Your task to perform on an android device: see creations saved in the google photos Image 0: 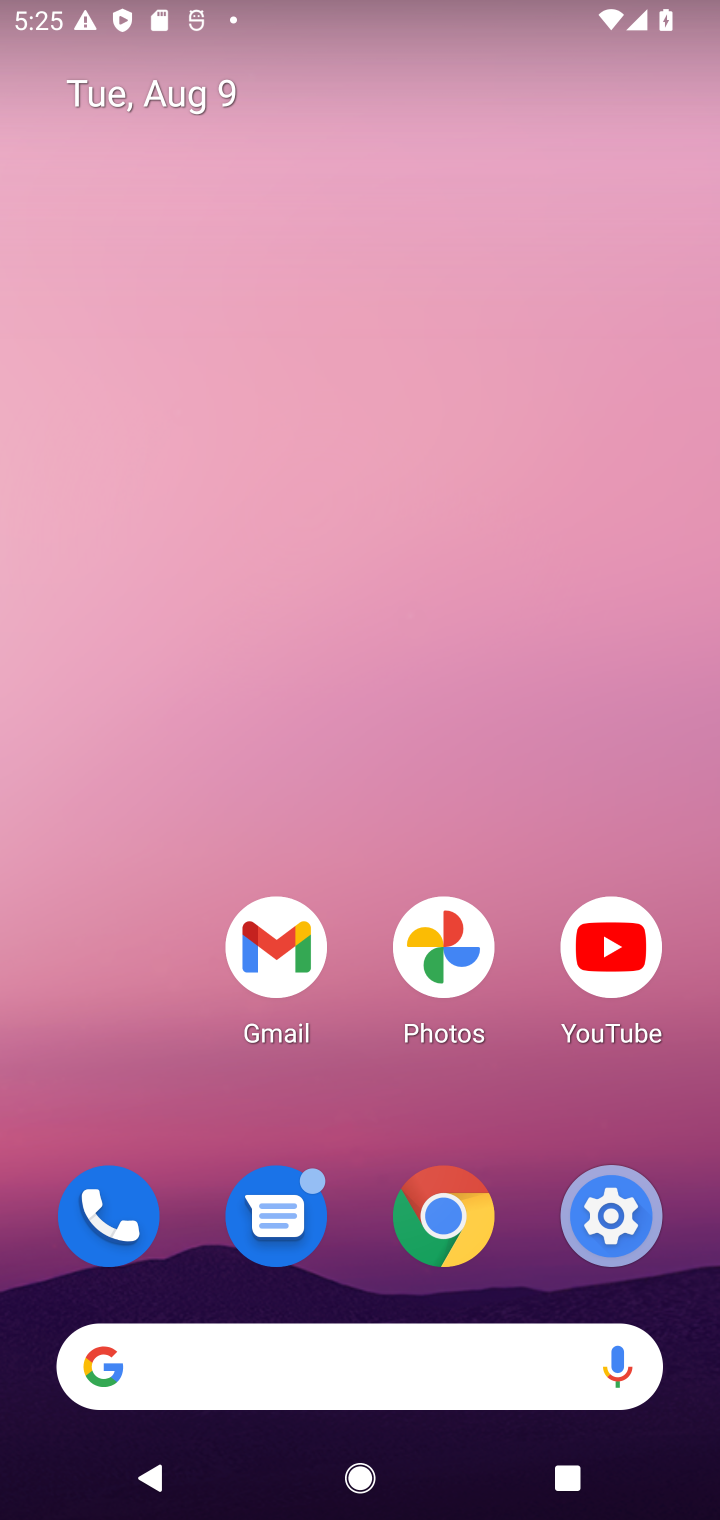
Step 0: drag from (348, 1323) to (396, 521)
Your task to perform on an android device: see creations saved in the google photos Image 1: 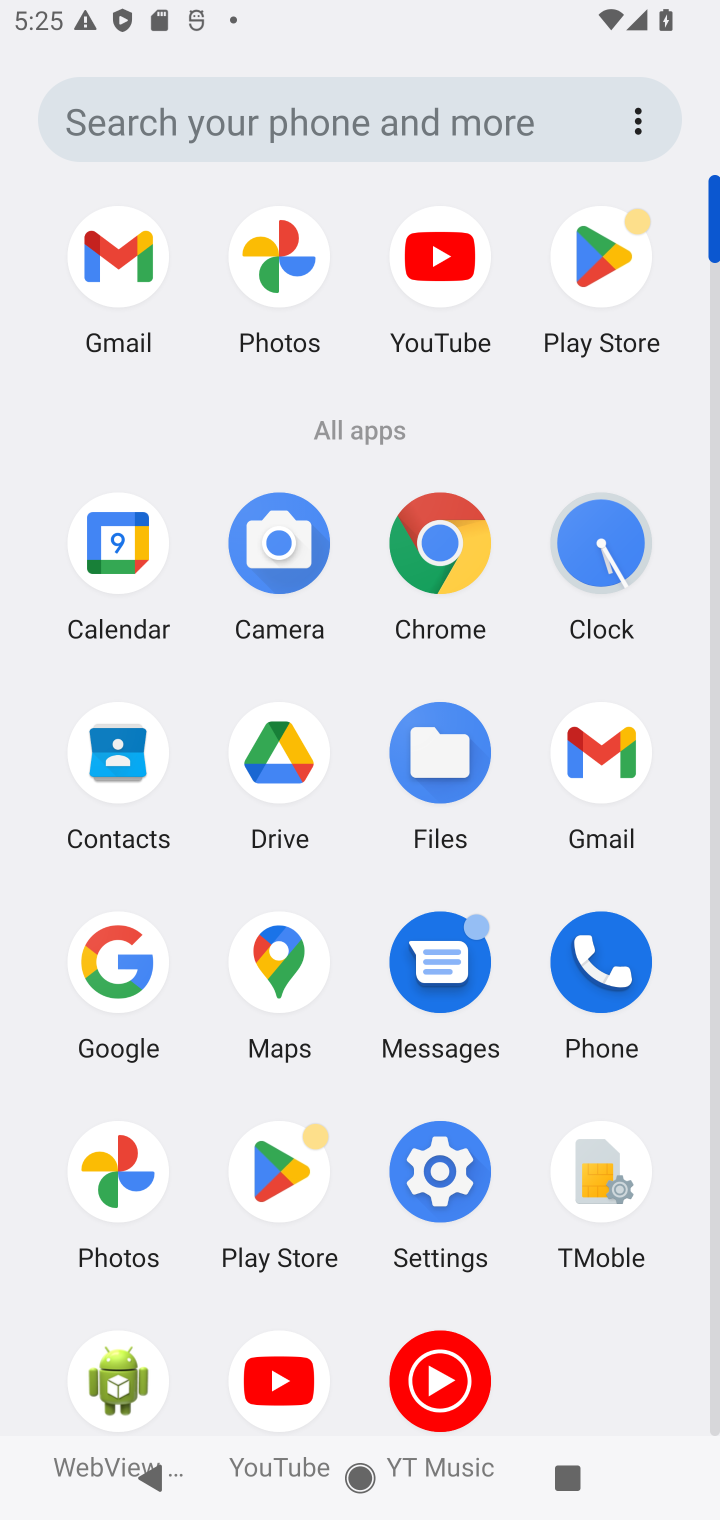
Step 1: click (620, 758)
Your task to perform on an android device: see creations saved in the google photos Image 2: 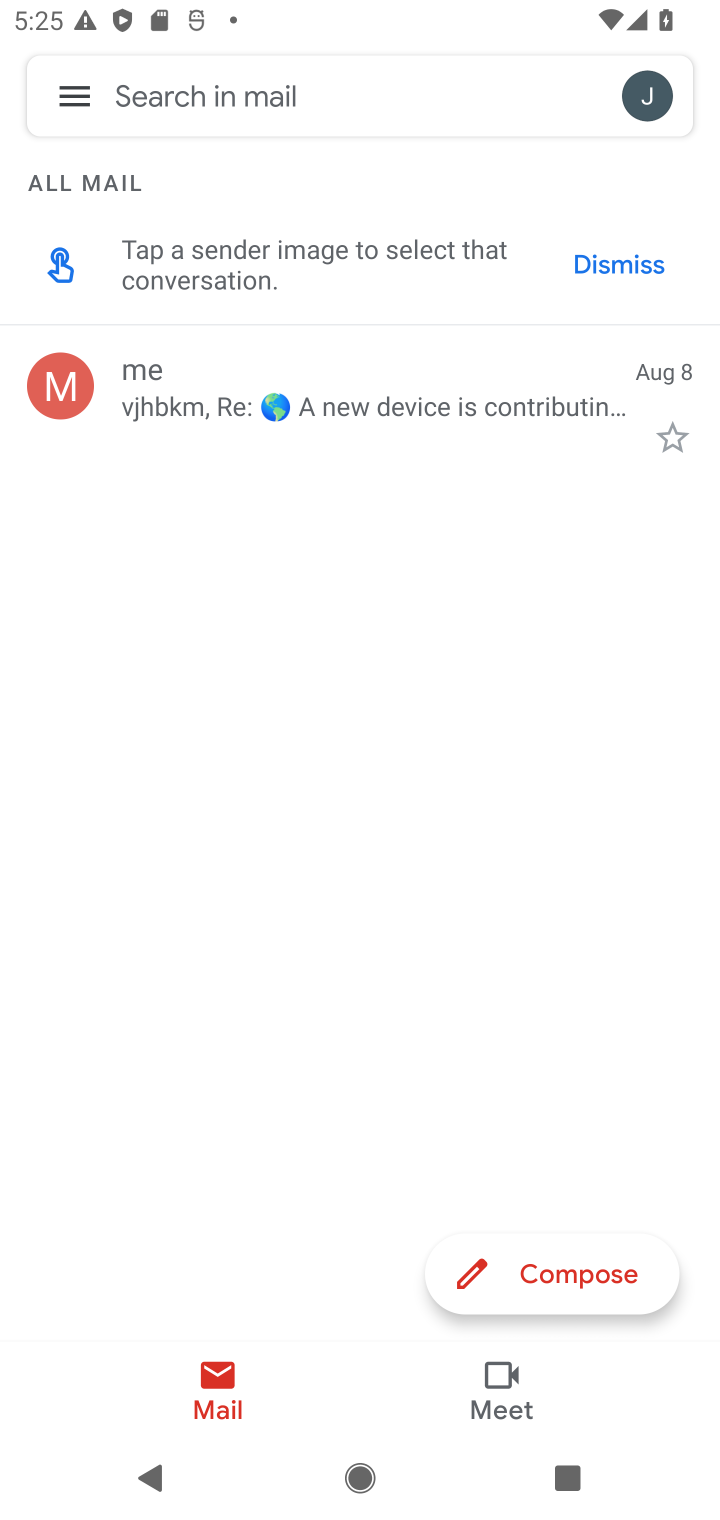
Step 2: click (77, 88)
Your task to perform on an android device: see creations saved in the google photos Image 3: 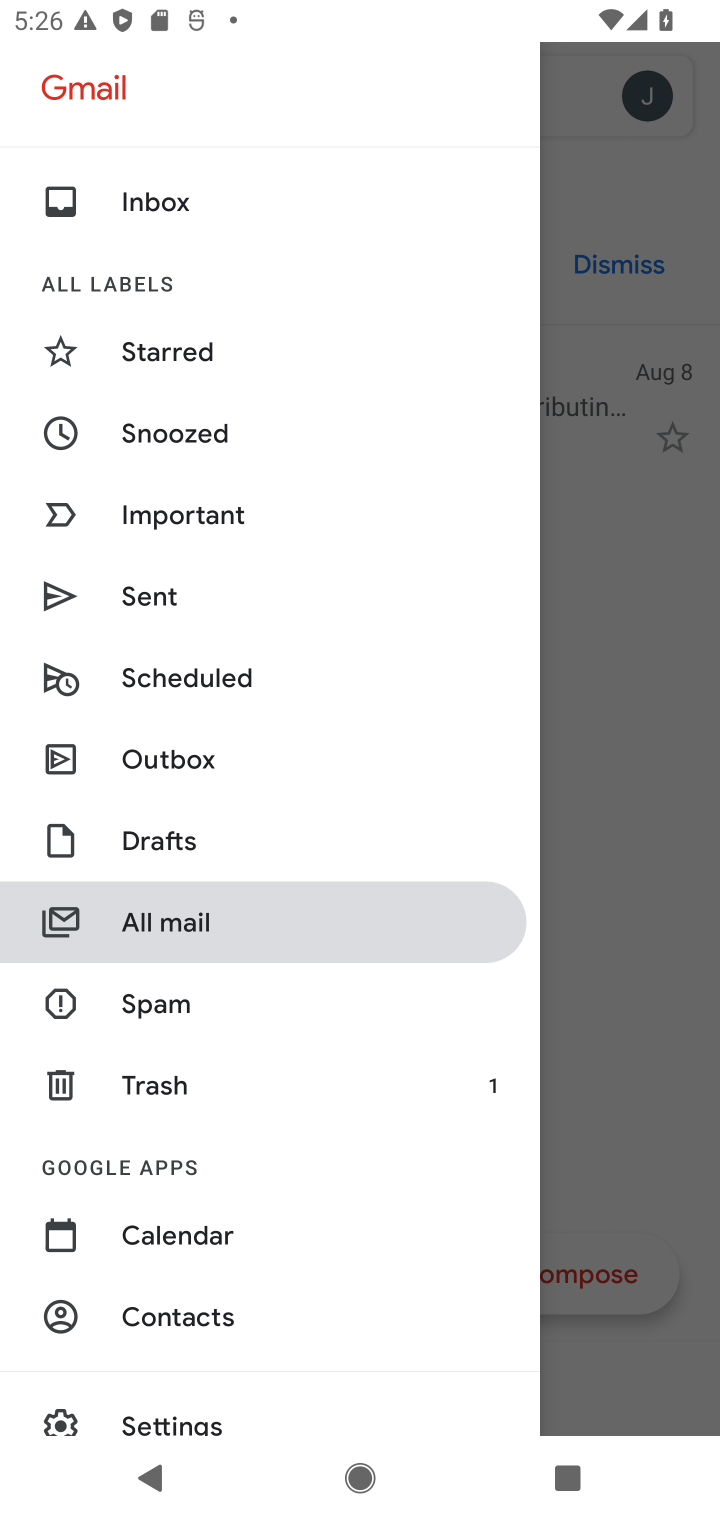
Step 3: click (169, 202)
Your task to perform on an android device: see creations saved in the google photos Image 4: 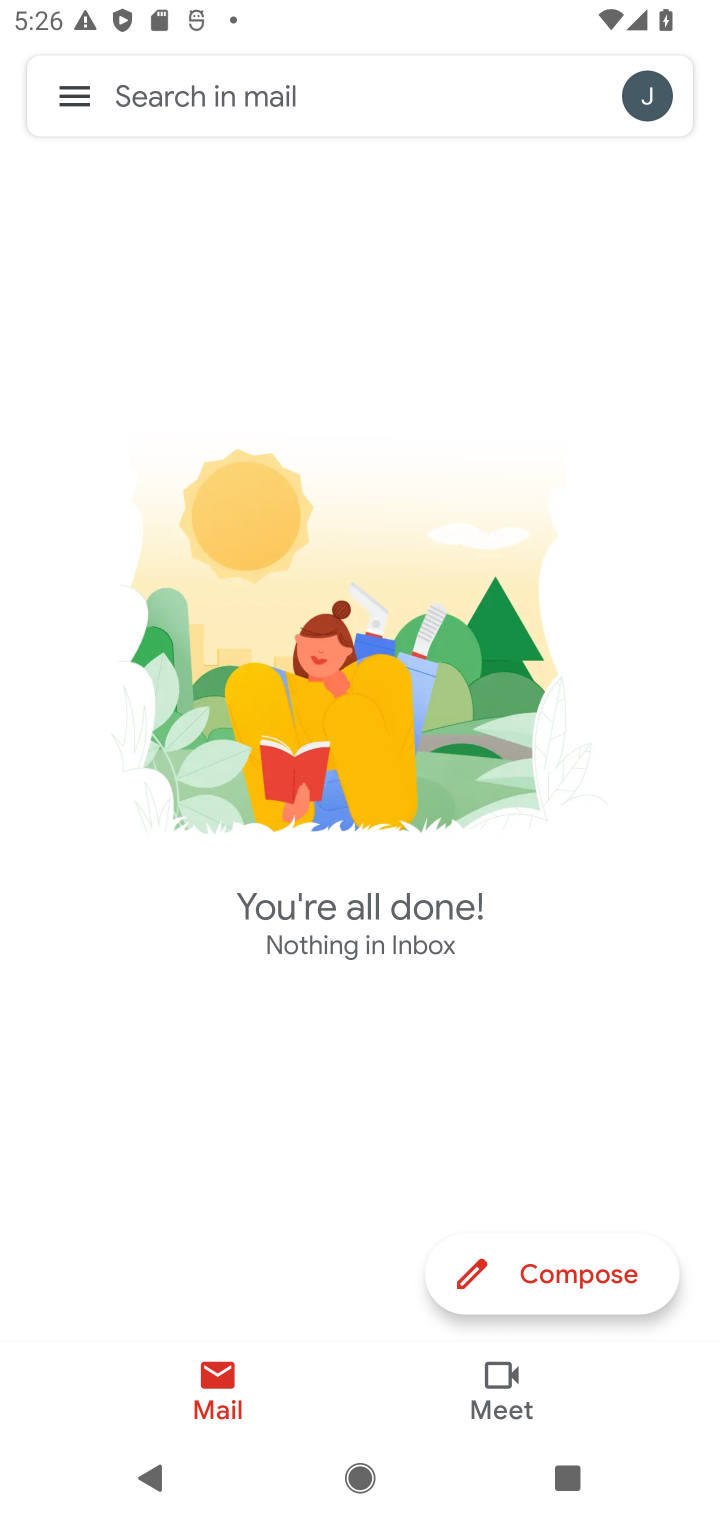
Step 4: press home button
Your task to perform on an android device: see creations saved in the google photos Image 5: 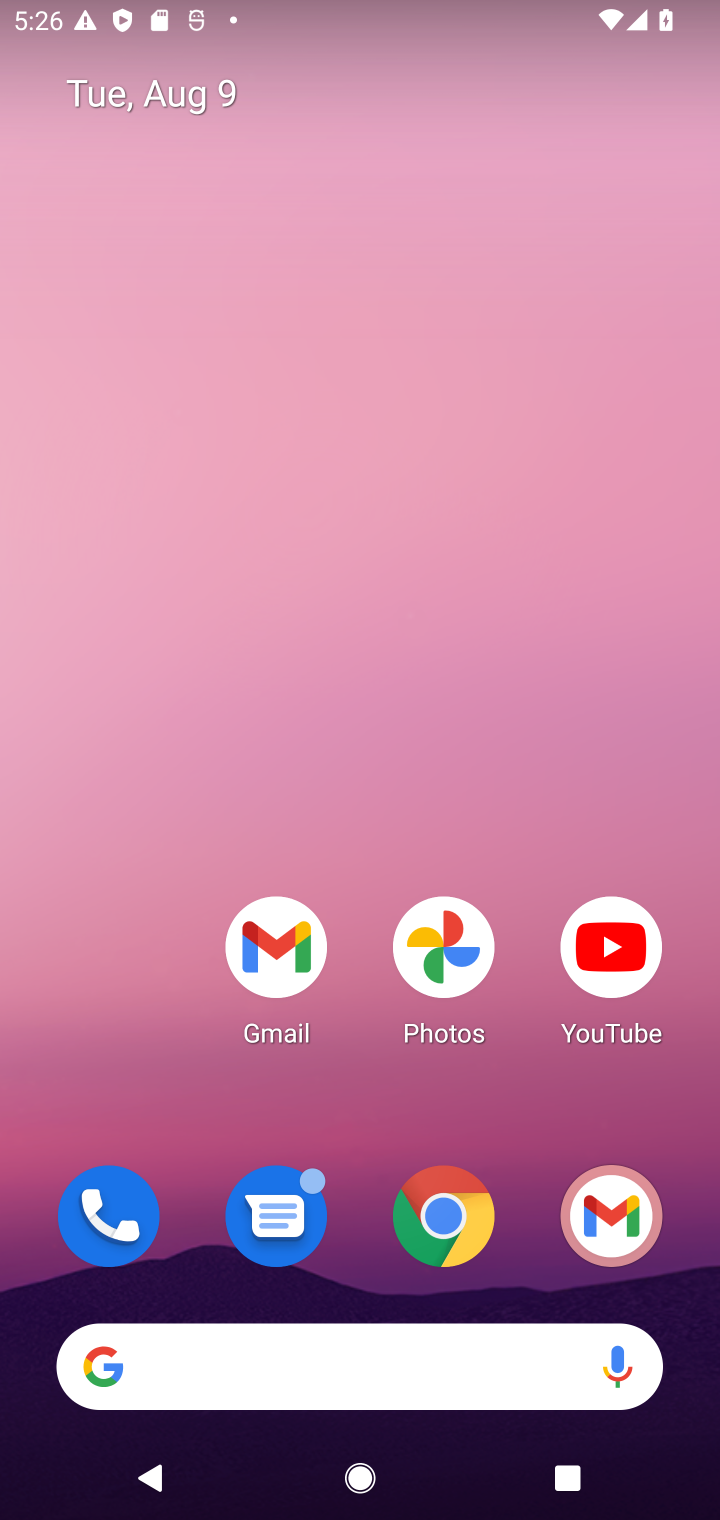
Step 5: click (437, 937)
Your task to perform on an android device: see creations saved in the google photos Image 6: 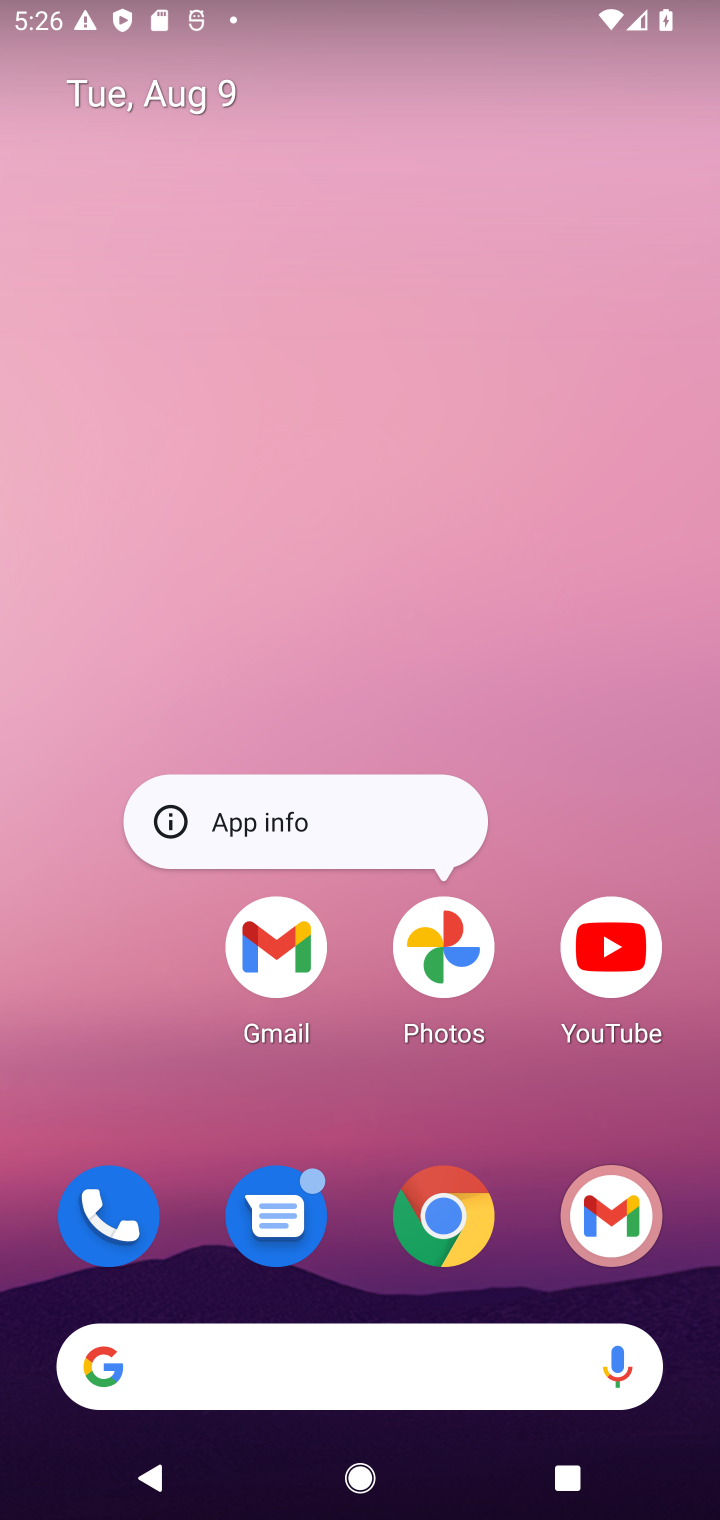
Step 6: click (439, 944)
Your task to perform on an android device: see creations saved in the google photos Image 7: 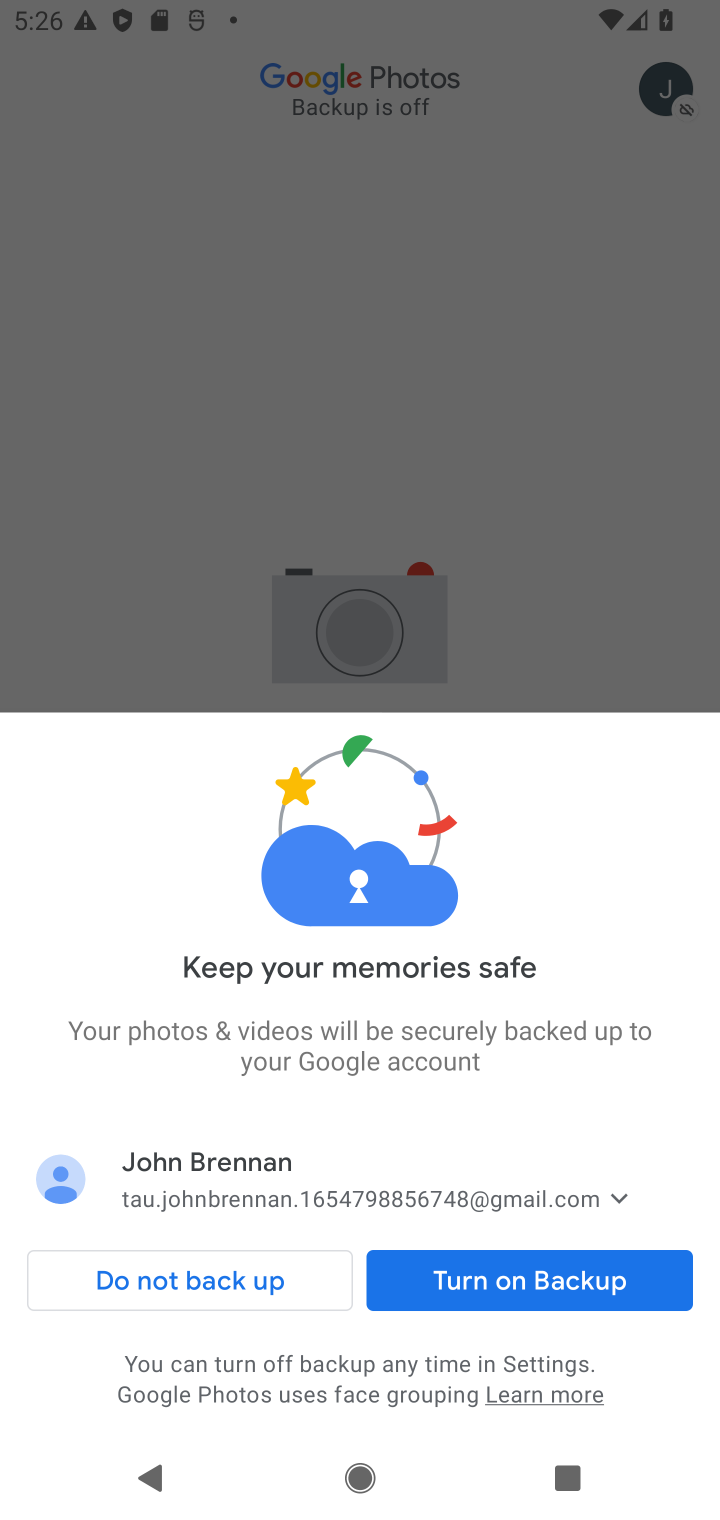
Step 7: click (466, 1278)
Your task to perform on an android device: see creations saved in the google photos Image 8: 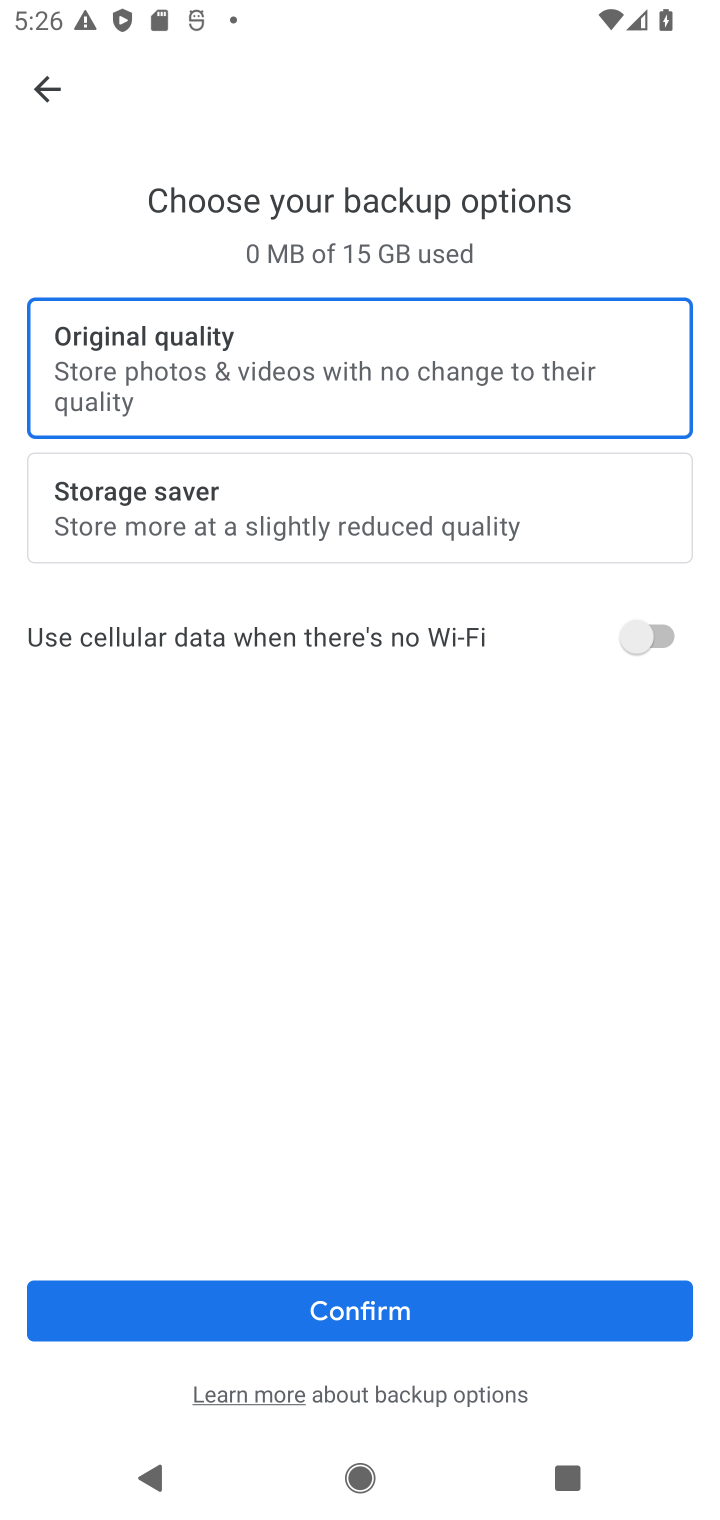
Step 8: click (275, 1316)
Your task to perform on an android device: see creations saved in the google photos Image 9: 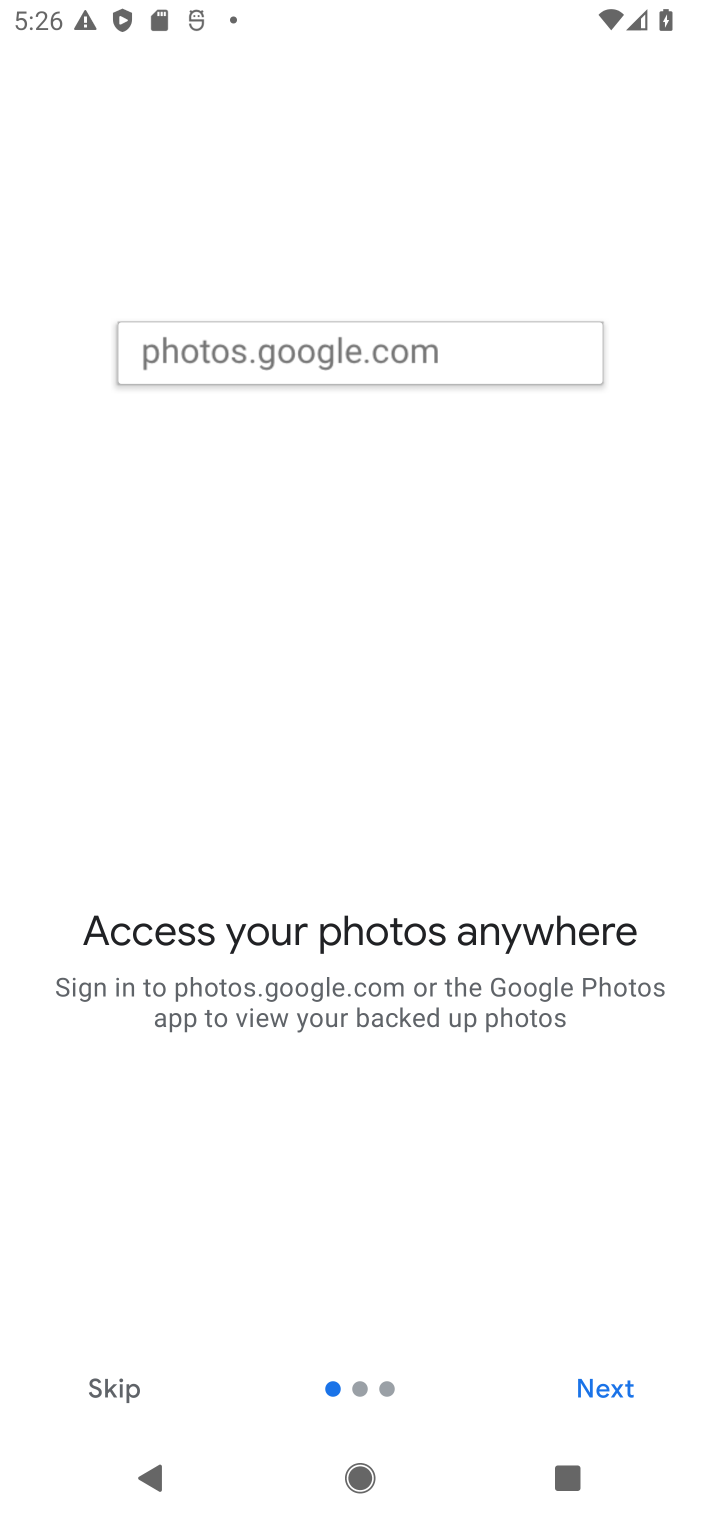
Step 9: click (633, 1385)
Your task to perform on an android device: see creations saved in the google photos Image 10: 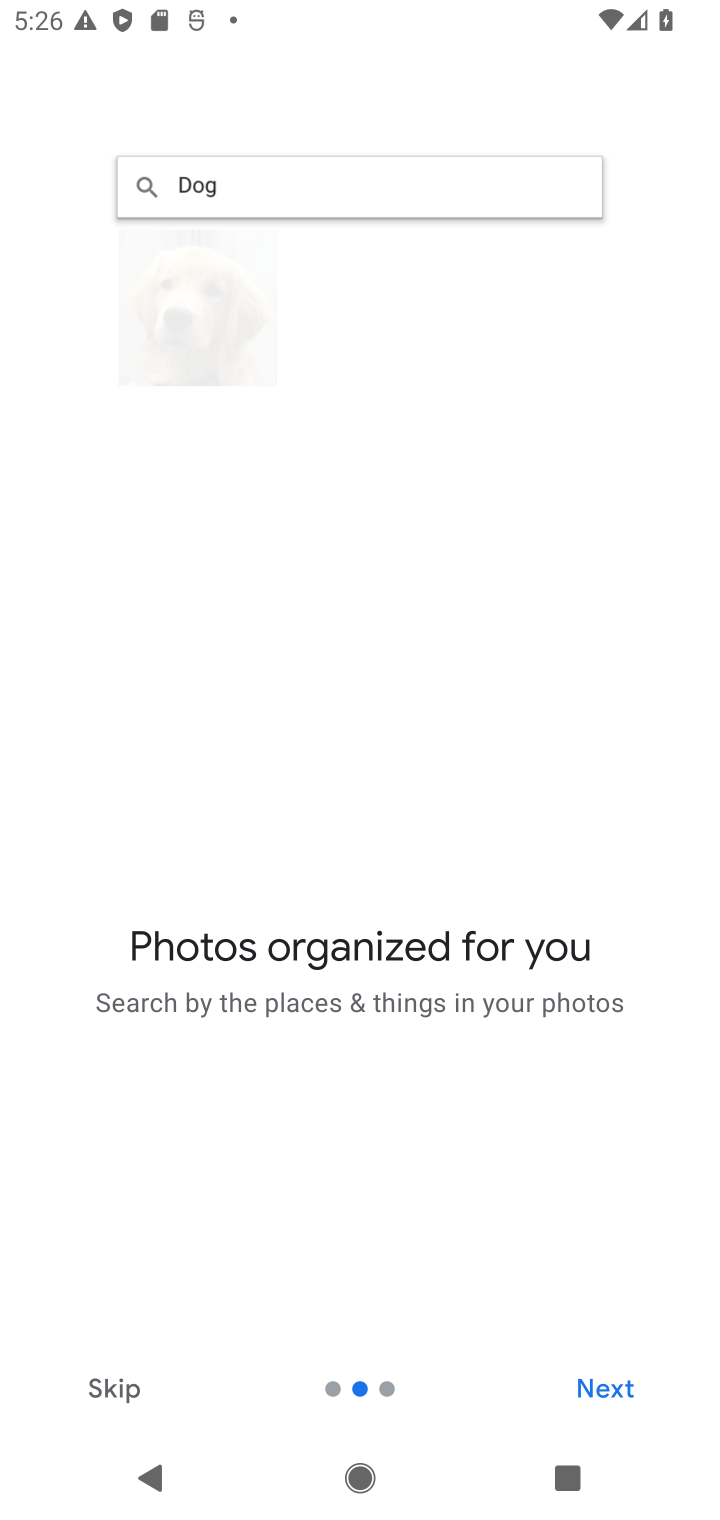
Step 10: click (622, 1387)
Your task to perform on an android device: see creations saved in the google photos Image 11: 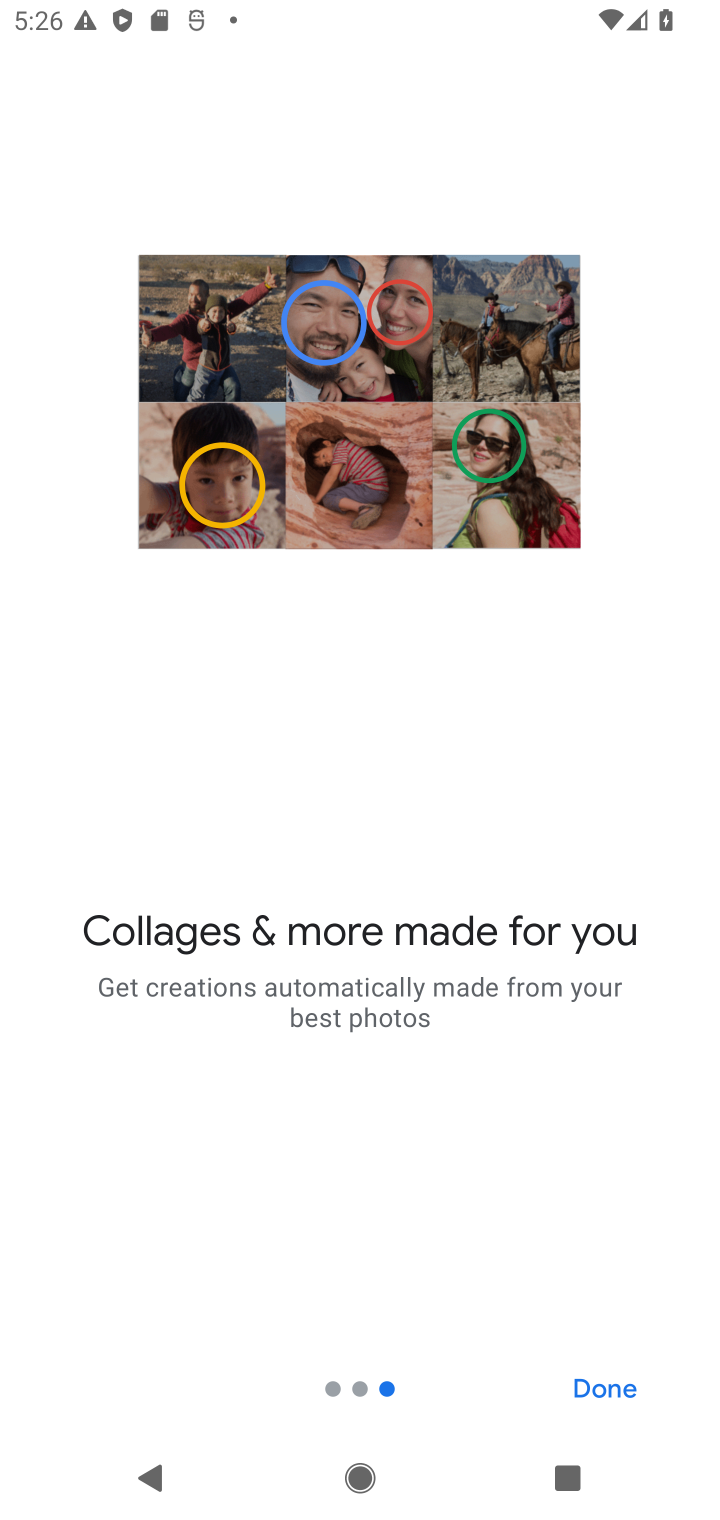
Step 11: click (622, 1387)
Your task to perform on an android device: see creations saved in the google photos Image 12: 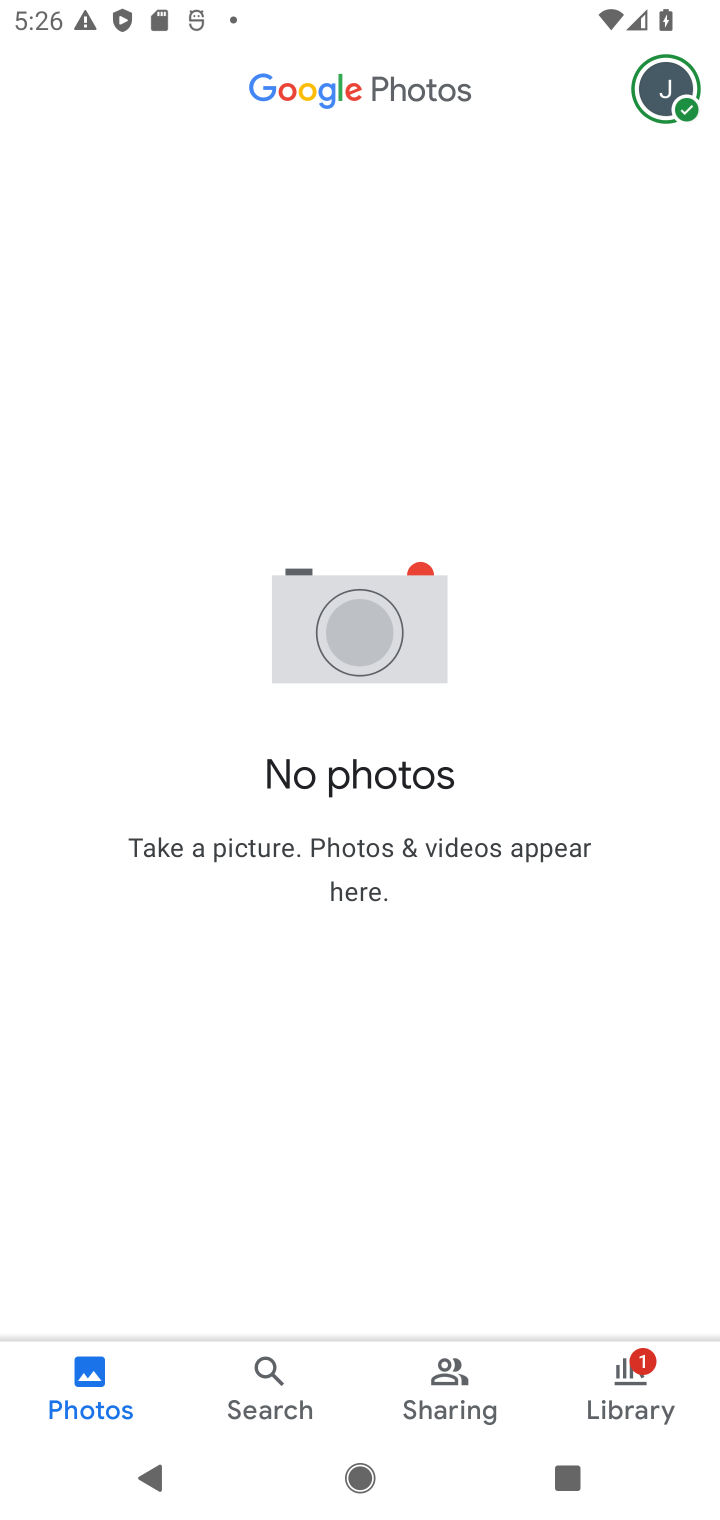
Step 12: click (620, 1388)
Your task to perform on an android device: see creations saved in the google photos Image 13: 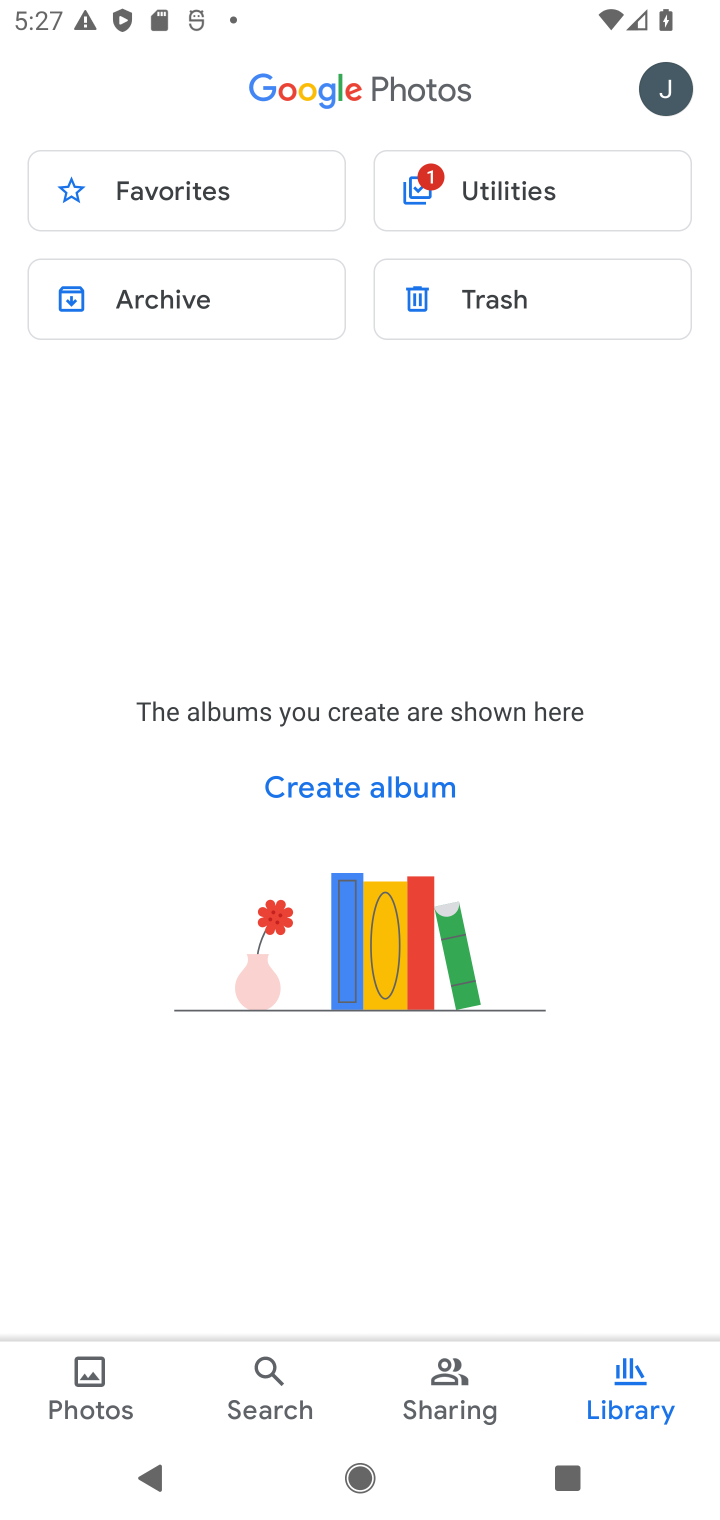
Step 13: task complete